Your task to perform on an android device: Open sound settings Image 0: 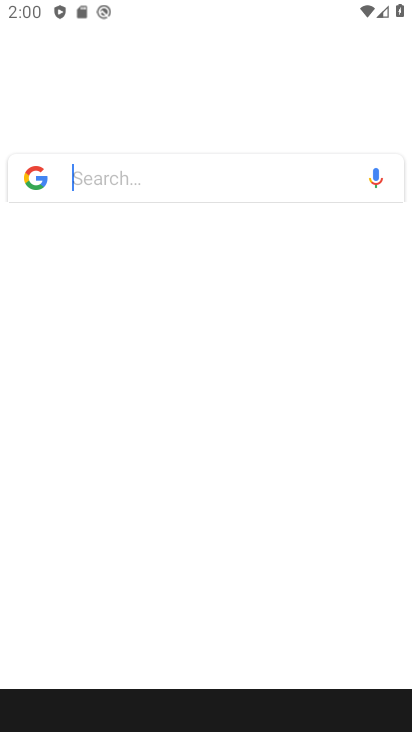
Step 0: drag from (222, 616) to (234, 456)
Your task to perform on an android device: Open sound settings Image 1: 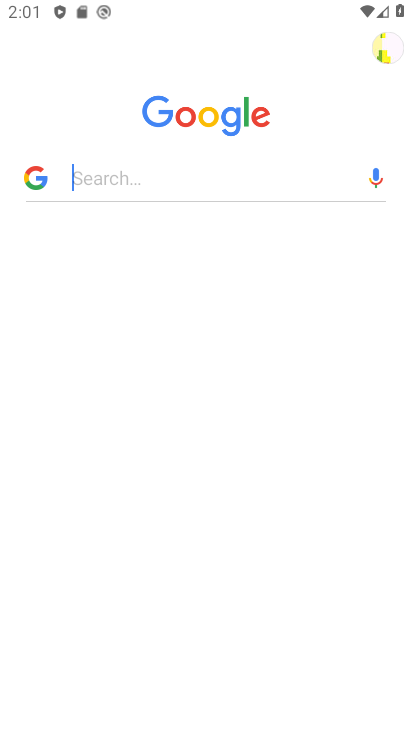
Step 1: press home button
Your task to perform on an android device: Open sound settings Image 2: 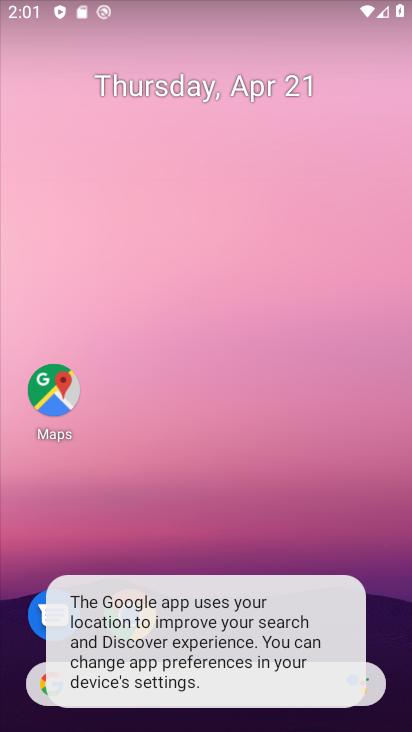
Step 2: drag from (197, 441) to (231, 86)
Your task to perform on an android device: Open sound settings Image 3: 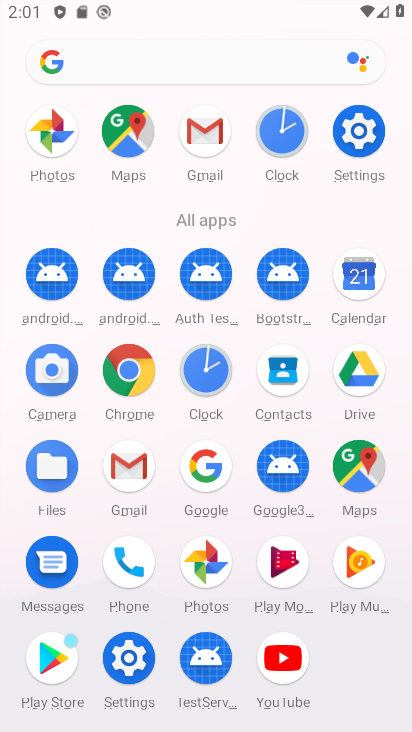
Step 3: click (144, 624)
Your task to perform on an android device: Open sound settings Image 4: 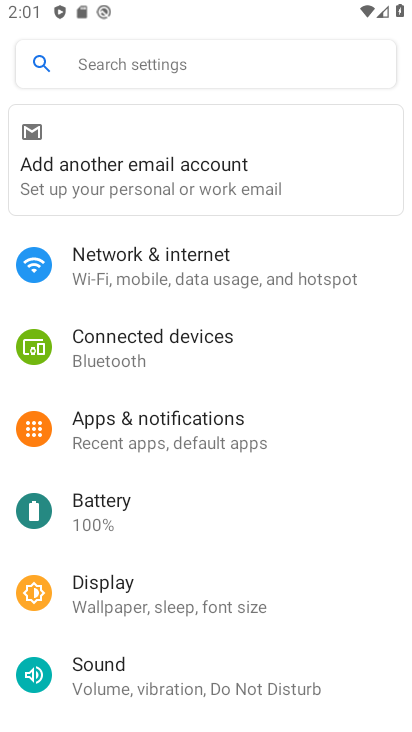
Step 4: drag from (112, 650) to (120, 584)
Your task to perform on an android device: Open sound settings Image 5: 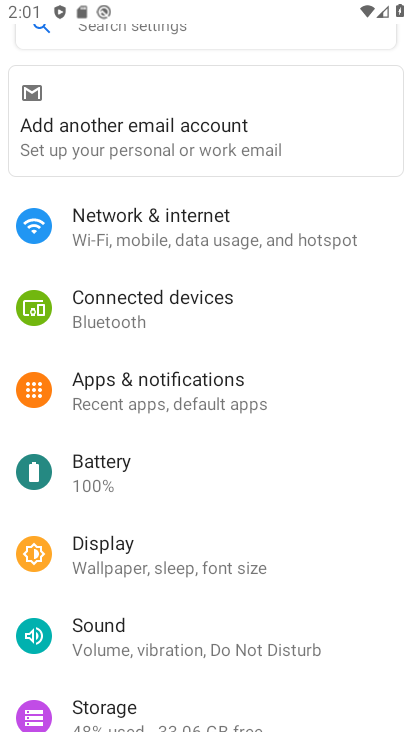
Step 5: click (121, 646)
Your task to perform on an android device: Open sound settings Image 6: 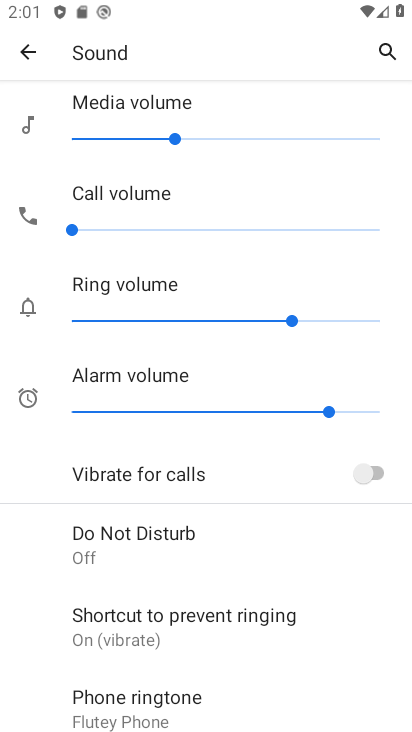
Step 6: task complete